Your task to perform on an android device: open the mobile data screen to see how much data has been used Image 0: 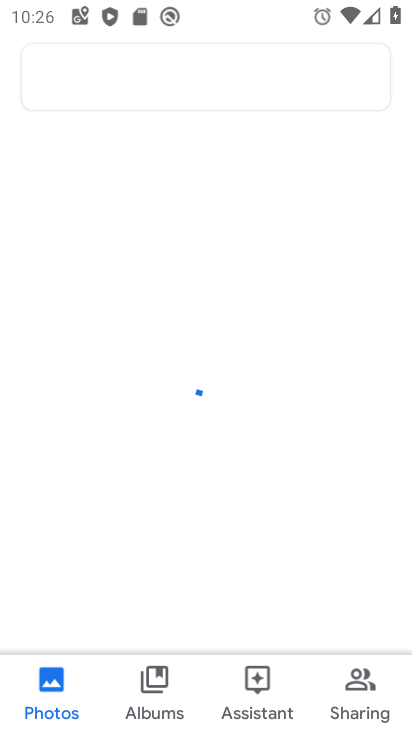
Step 0: press home button
Your task to perform on an android device: open the mobile data screen to see how much data has been used Image 1: 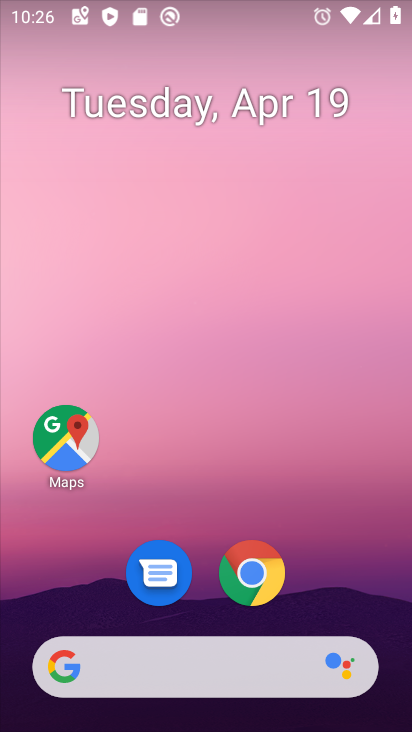
Step 1: drag from (322, 571) to (273, 74)
Your task to perform on an android device: open the mobile data screen to see how much data has been used Image 2: 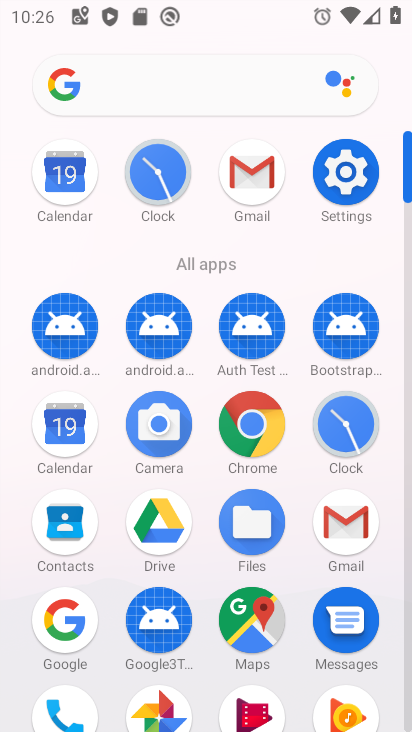
Step 2: click (339, 179)
Your task to perform on an android device: open the mobile data screen to see how much data has been used Image 3: 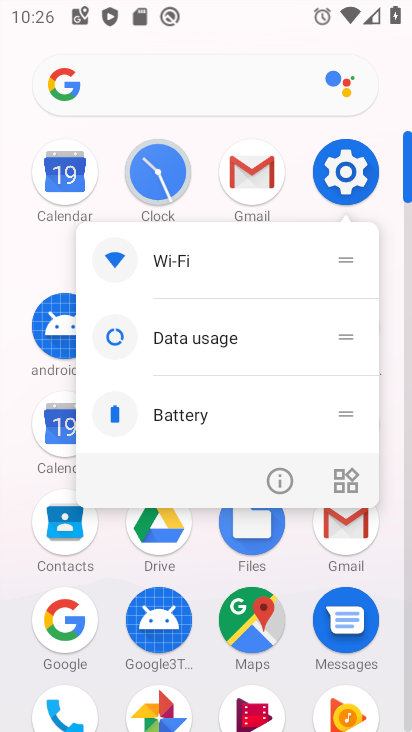
Step 3: click (339, 179)
Your task to perform on an android device: open the mobile data screen to see how much data has been used Image 4: 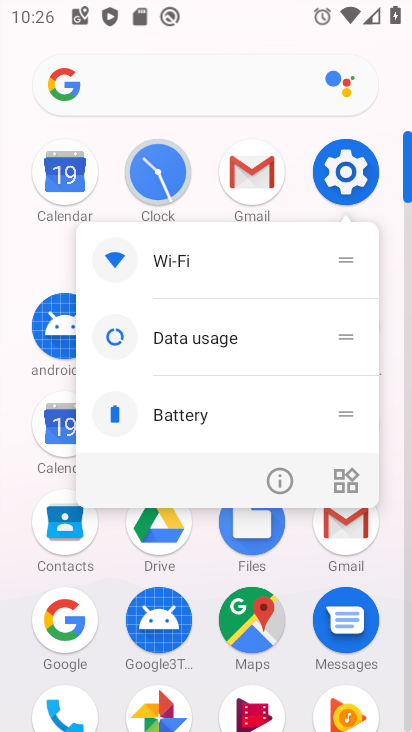
Step 4: click (339, 179)
Your task to perform on an android device: open the mobile data screen to see how much data has been used Image 5: 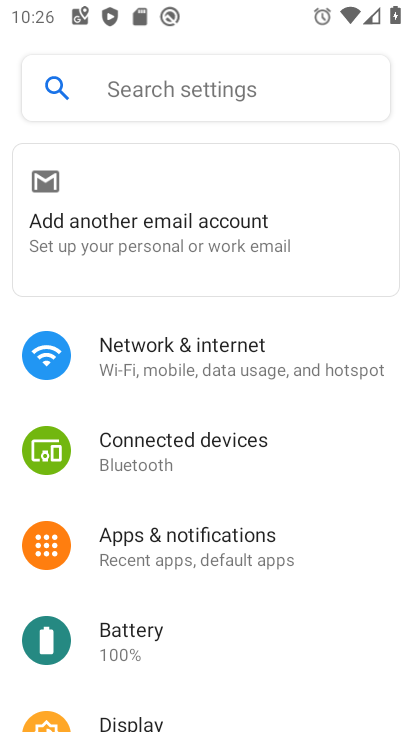
Step 5: click (238, 357)
Your task to perform on an android device: open the mobile data screen to see how much data has been used Image 6: 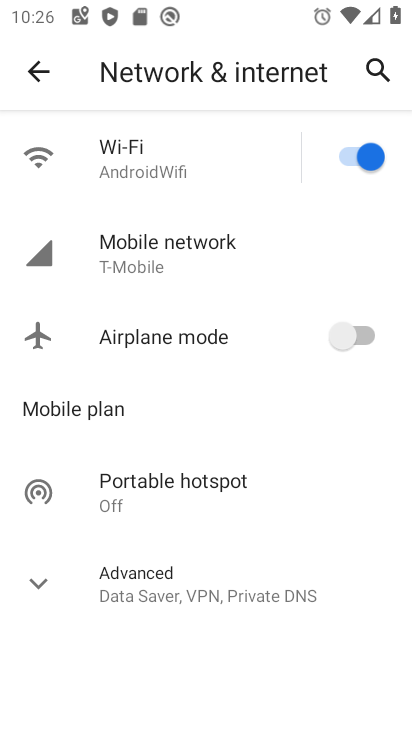
Step 6: click (200, 258)
Your task to perform on an android device: open the mobile data screen to see how much data has been used Image 7: 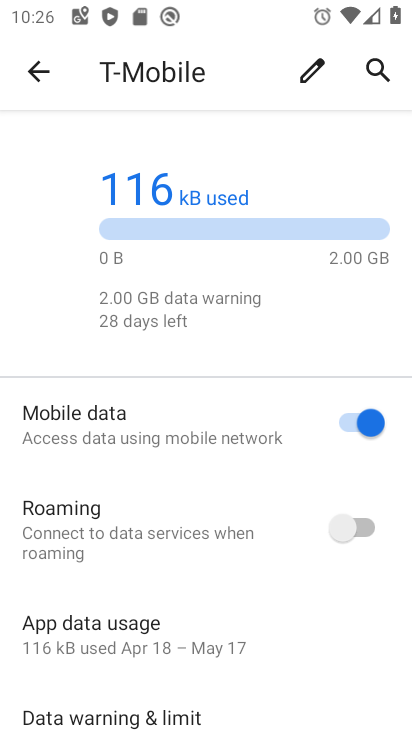
Step 7: task complete